Your task to perform on an android device: Open the web browser Image 0: 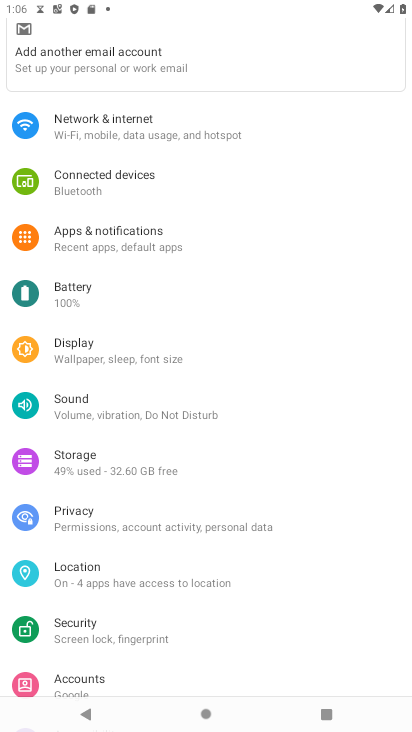
Step 0: press home button
Your task to perform on an android device: Open the web browser Image 1: 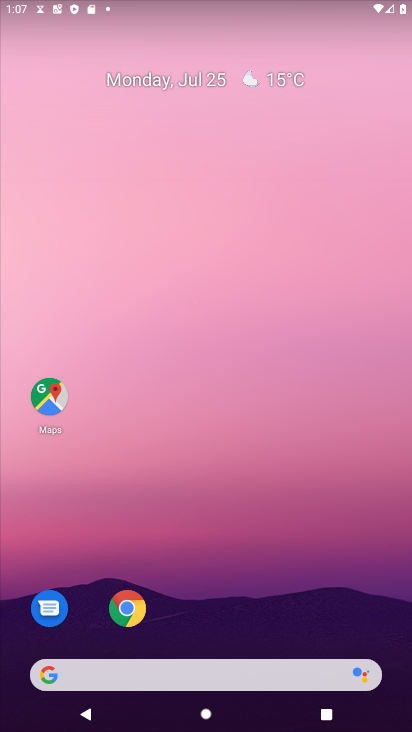
Step 1: click (148, 615)
Your task to perform on an android device: Open the web browser Image 2: 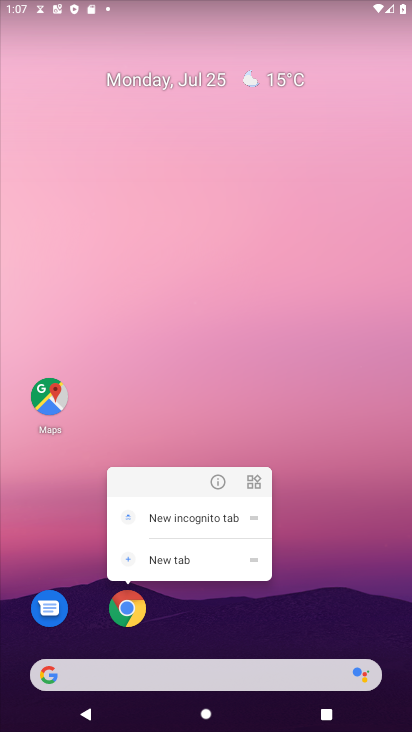
Step 2: click (350, 556)
Your task to perform on an android device: Open the web browser Image 3: 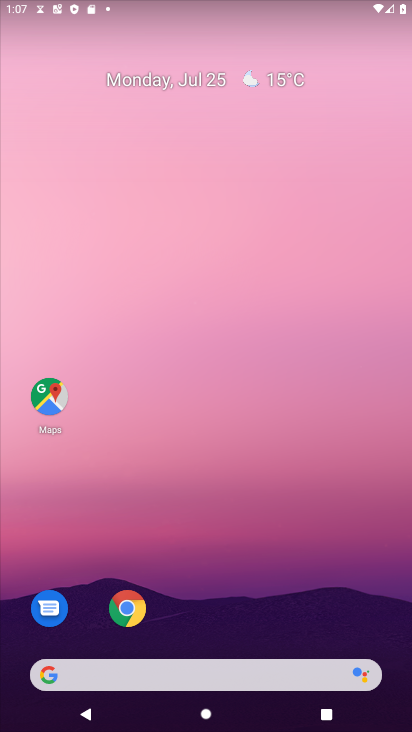
Step 3: click (147, 614)
Your task to perform on an android device: Open the web browser Image 4: 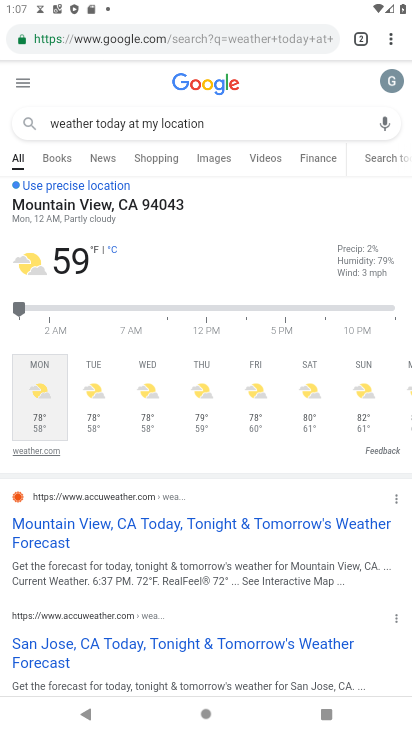
Step 4: task complete